Your task to perform on an android device: Go to Maps Image 0: 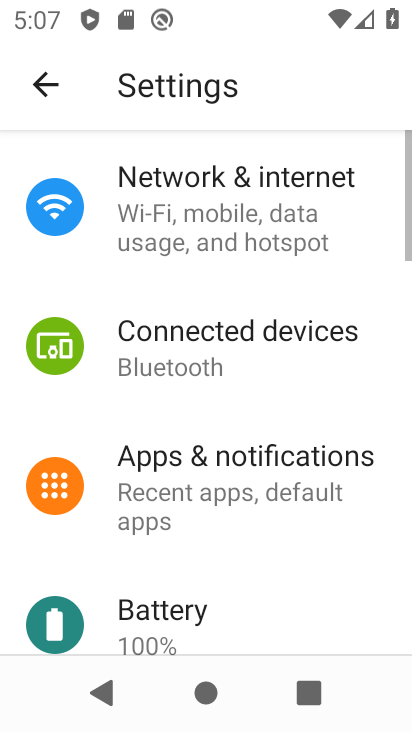
Step 0: press home button
Your task to perform on an android device: Go to Maps Image 1: 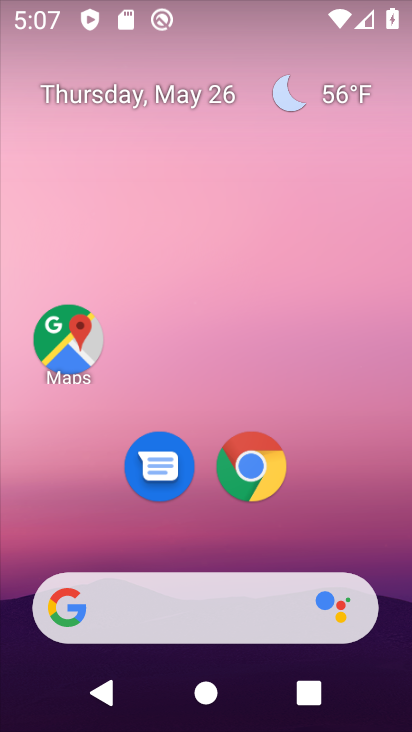
Step 1: drag from (286, 519) to (347, 98)
Your task to perform on an android device: Go to Maps Image 2: 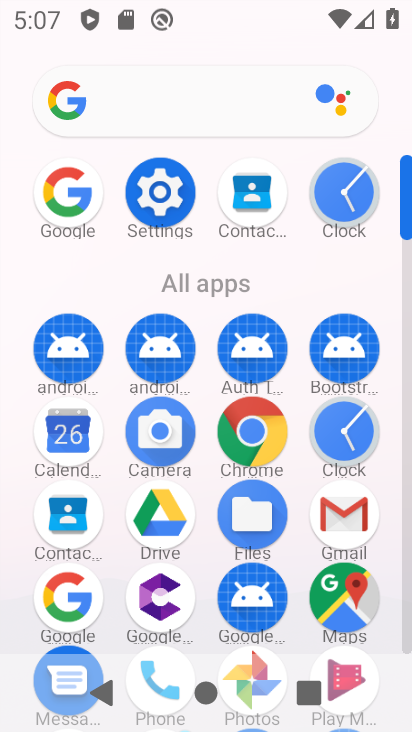
Step 2: click (340, 600)
Your task to perform on an android device: Go to Maps Image 3: 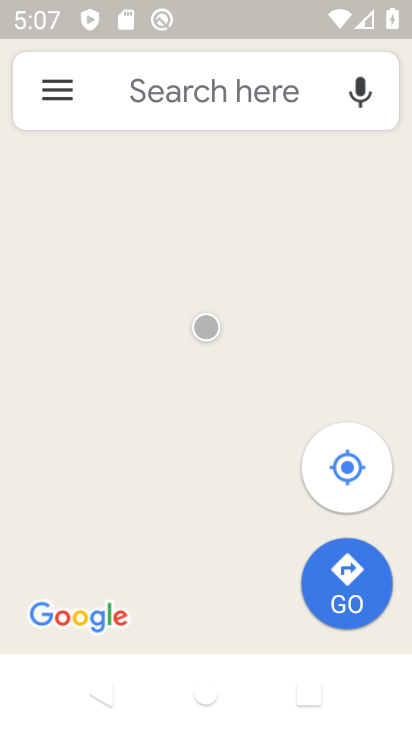
Step 3: task complete